Your task to perform on an android device: Do I have any events this weekend? Image 0: 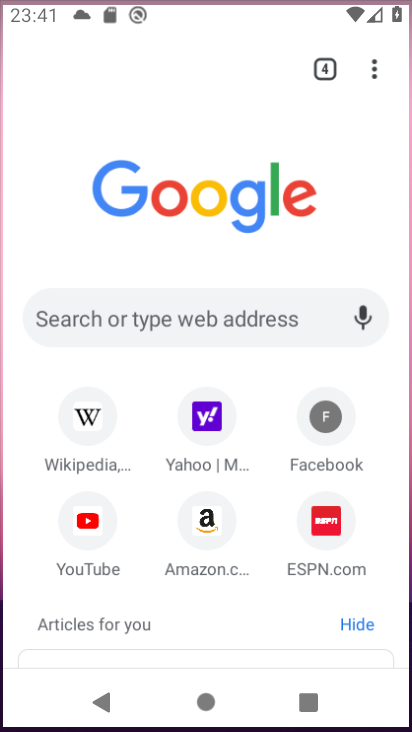
Step 0: press home button
Your task to perform on an android device: Do I have any events this weekend? Image 1: 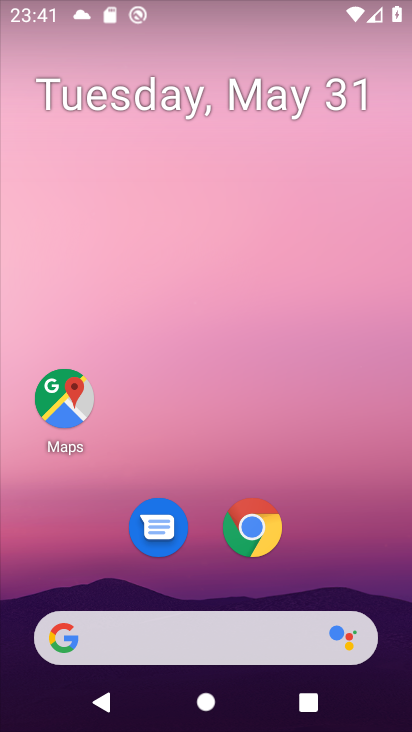
Step 1: drag from (345, 555) to (216, 12)
Your task to perform on an android device: Do I have any events this weekend? Image 2: 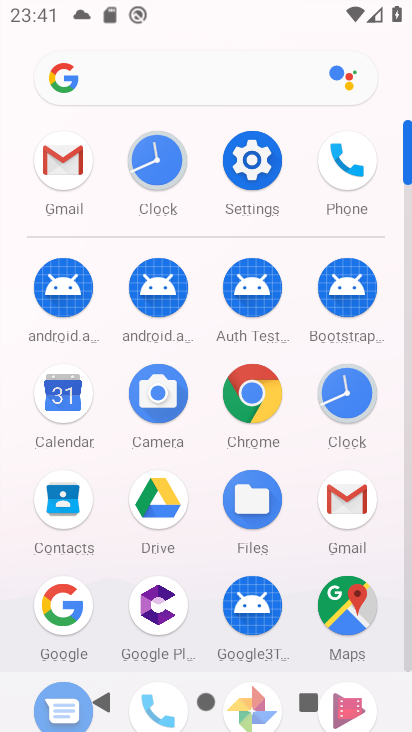
Step 2: click (70, 387)
Your task to perform on an android device: Do I have any events this weekend? Image 3: 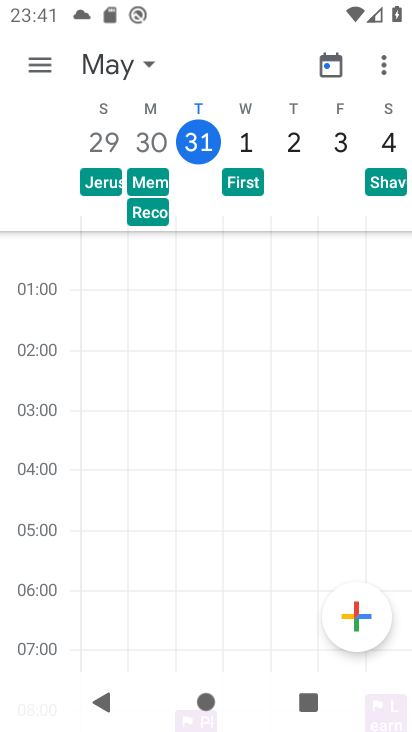
Step 3: task complete